Your task to perform on an android device: Open the calendar app, open the side menu, and click the "Day" option Image 0: 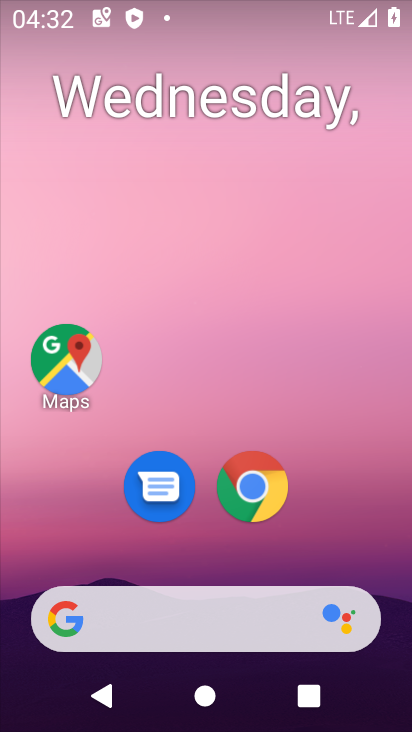
Step 0: drag from (191, 587) to (172, 109)
Your task to perform on an android device: Open the calendar app, open the side menu, and click the "Day" option Image 1: 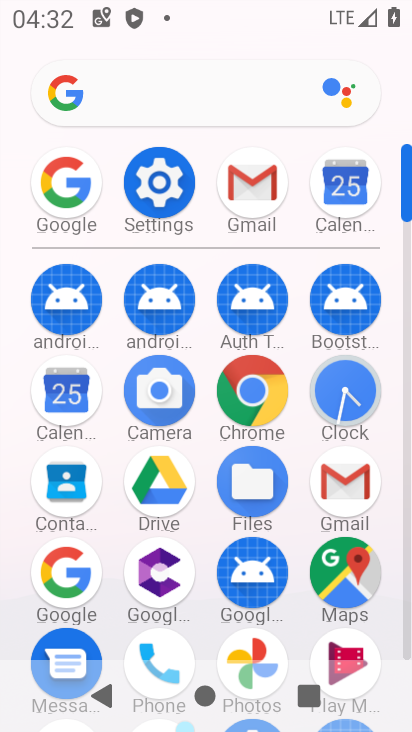
Step 1: click (53, 393)
Your task to perform on an android device: Open the calendar app, open the side menu, and click the "Day" option Image 2: 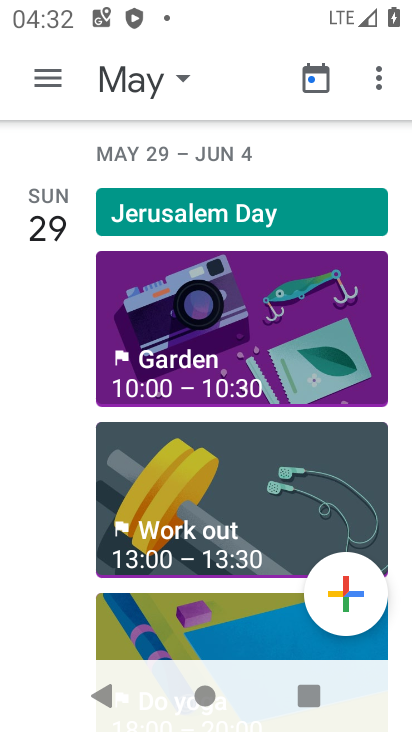
Step 2: click (48, 81)
Your task to perform on an android device: Open the calendar app, open the side menu, and click the "Day" option Image 3: 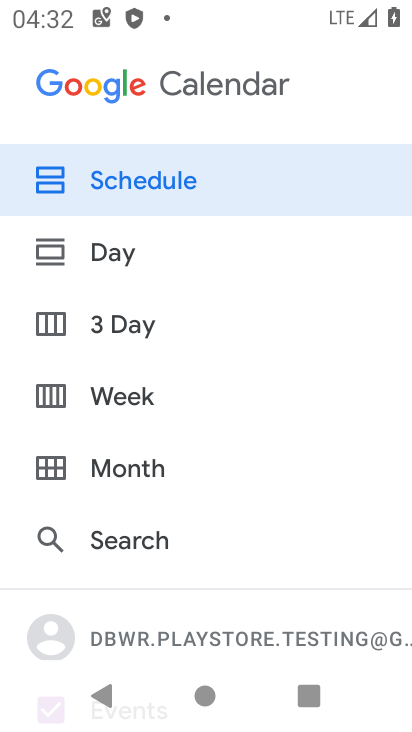
Step 3: click (116, 251)
Your task to perform on an android device: Open the calendar app, open the side menu, and click the "Day" option Image 4: 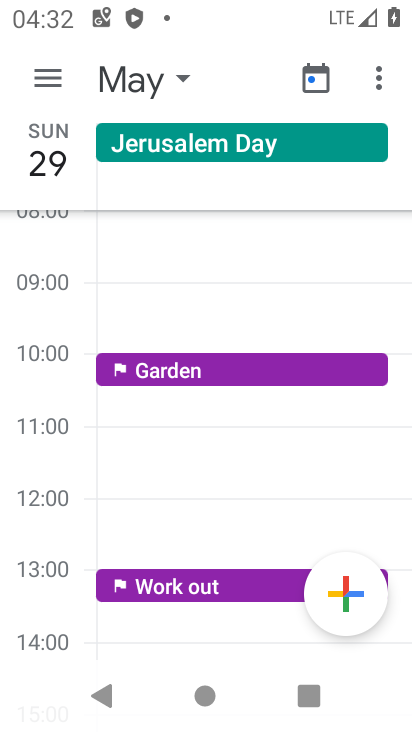
Step 4: task complete